Your task to perform on an android device: open a bookmark in the chrome app Image 0: 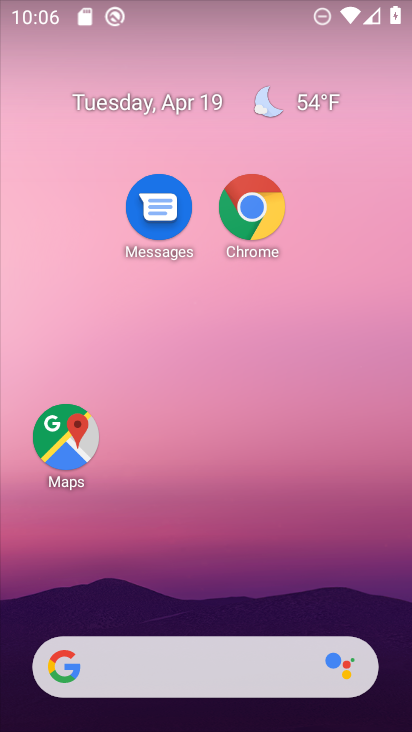
Step 0: click (259, 215)
Your task to perform on an android device: open a bookmark in the chrome app Image 1: 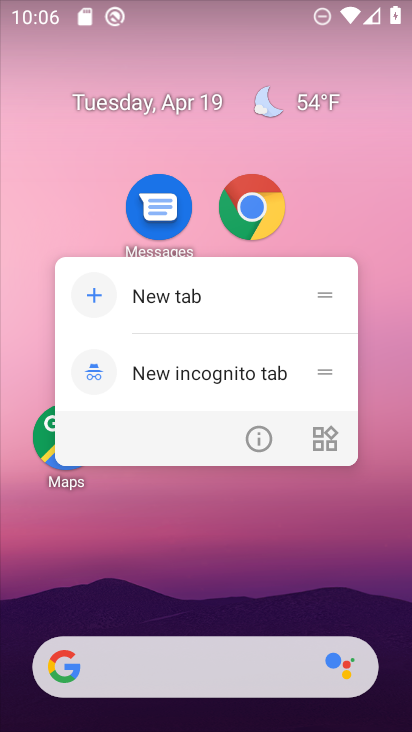
Step 1: click (254, 206)
Your task to perform on an android device: open a bookmark in the chrome app Image 2: 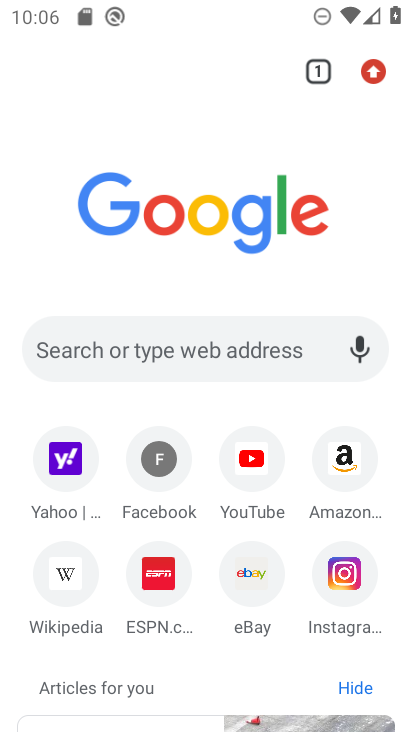
Step 2: click (380, 69)
Your task to perform on an android device: open a bookmark in the chrome app Image 3: 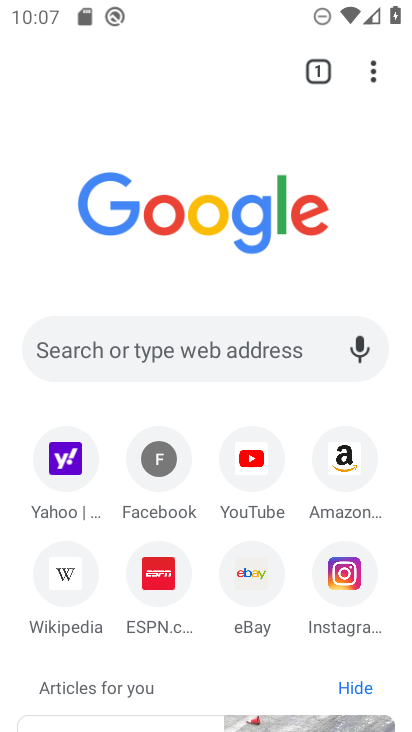
Step 3: click (375, 62)
Your task to perform on an android device: open a bookmark in the chrome app Image 4: 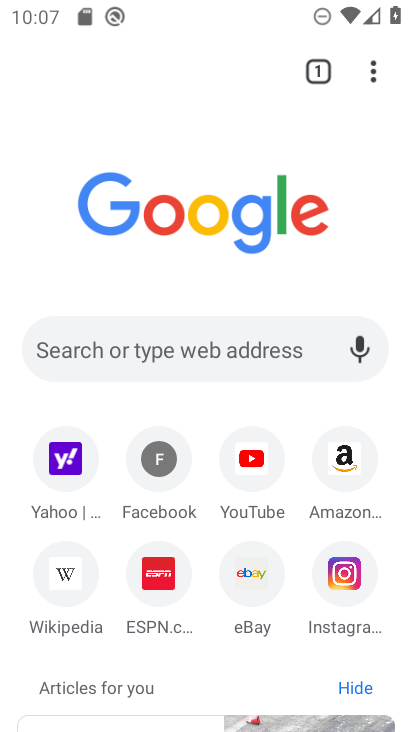
Step 4: click (372, 81)
Your task to perform on an android device: open a bookmark in the chrome app Image 5: 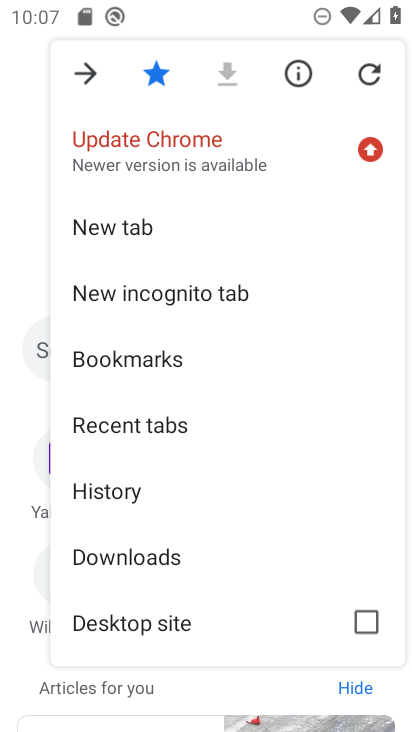
Step 5: click (144, 345)
Your task to perform on an android device: open a bookmark in the chrome app Image 6: 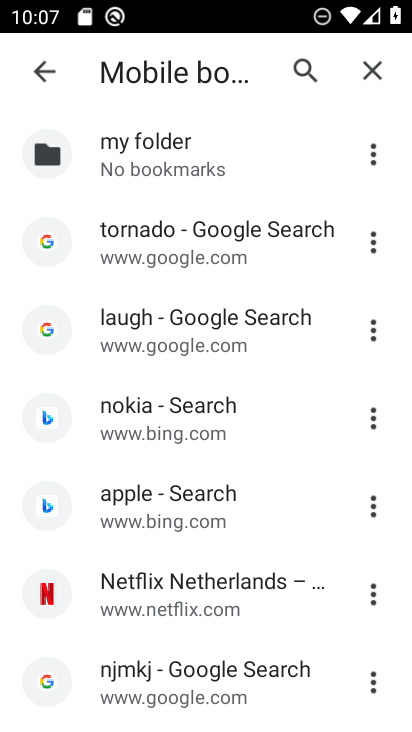
Step 6: task complete